Your task to perform on an android device: Open eBay Image 0: 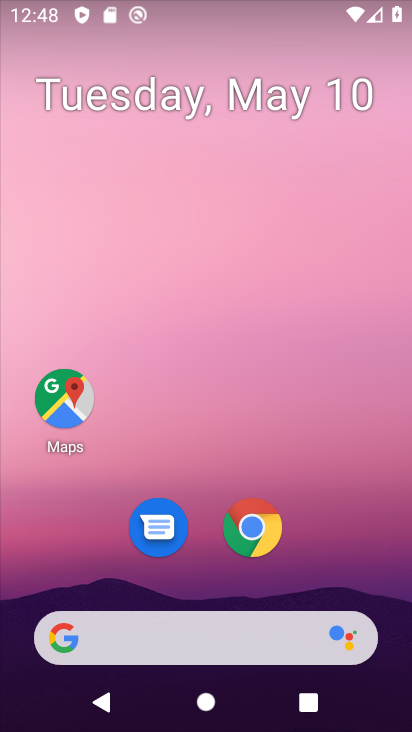
Step 0: click (254, 535)
Your task to perform on an android device: Open eBay Image 1: 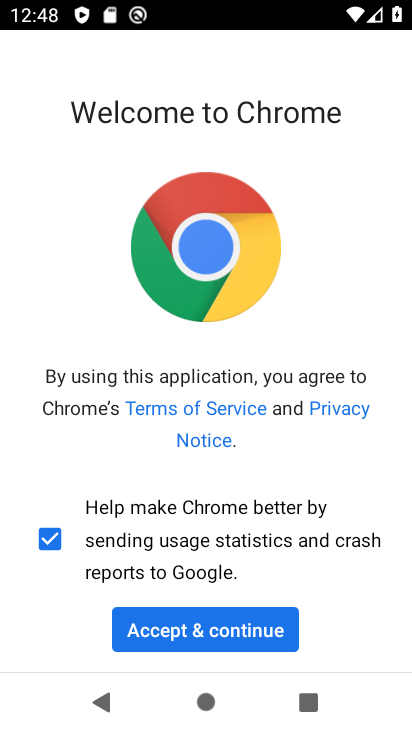
Step 1: click (231, 620)
Your task to perform on an android device: Open eBay Image 2: 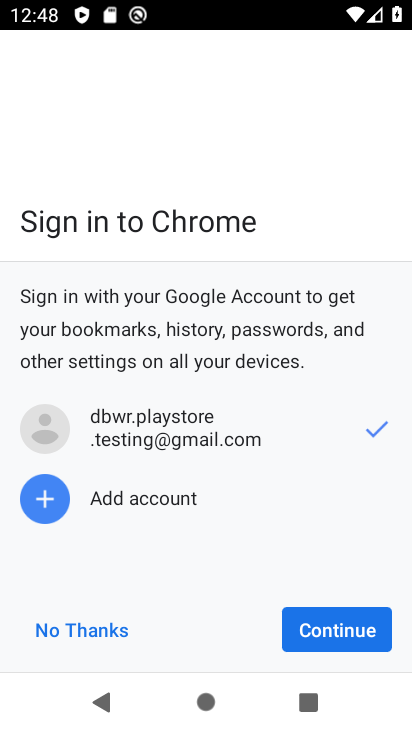
Step 2: click (64, 639)
Your task to perform on an android device: Open eBay Image 3: 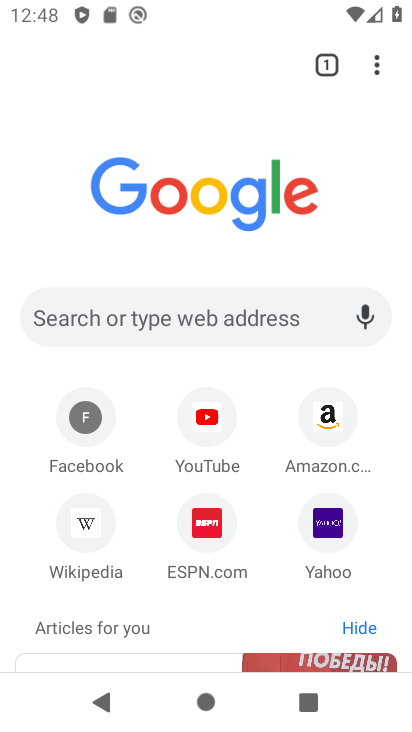
Step 3: click (95, 312)
Your task to perform on an android device: Open eBay Image 4: 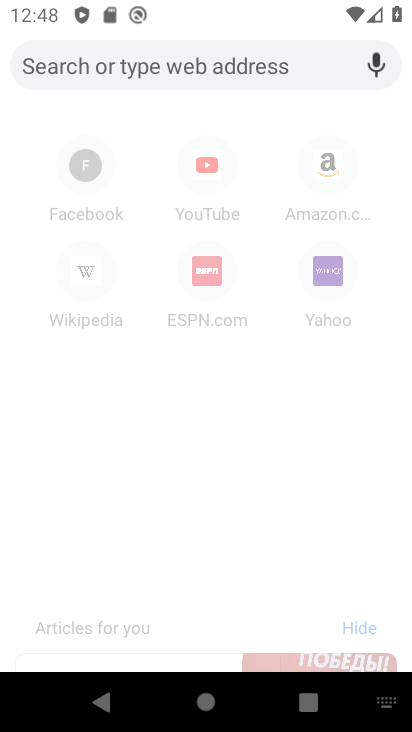
Step 4: type "ebay"
Your task to perform on an android device: Open eBay Image 5: 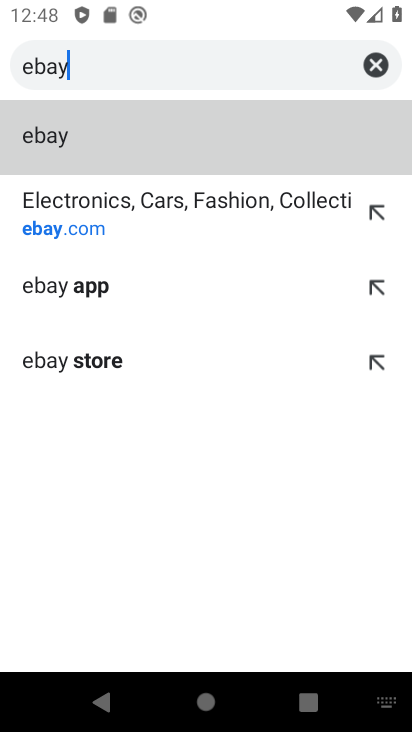
Step 5: click (62, 142)
Your task to perform on an android device: Open eBay Image 6: 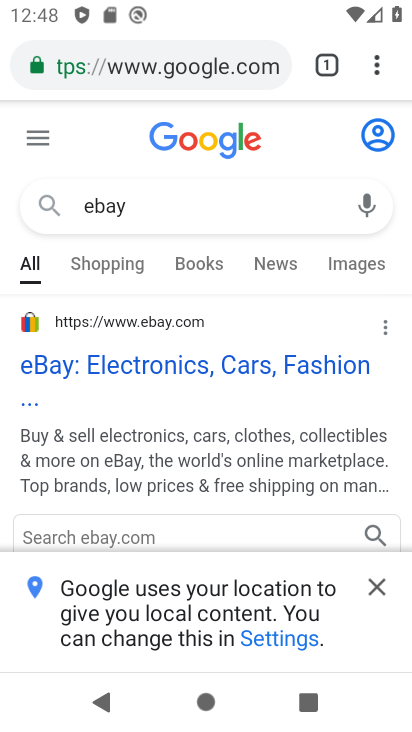
Step 6: click (75, 371)
Your task to perform on an android device: Open eBay Image 7: 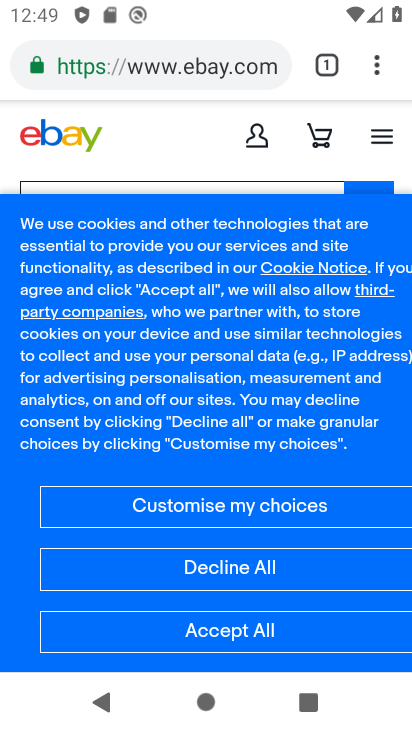
Step 7: task complete